Your task to perform on an android device: change the clock display to digital Image 0: 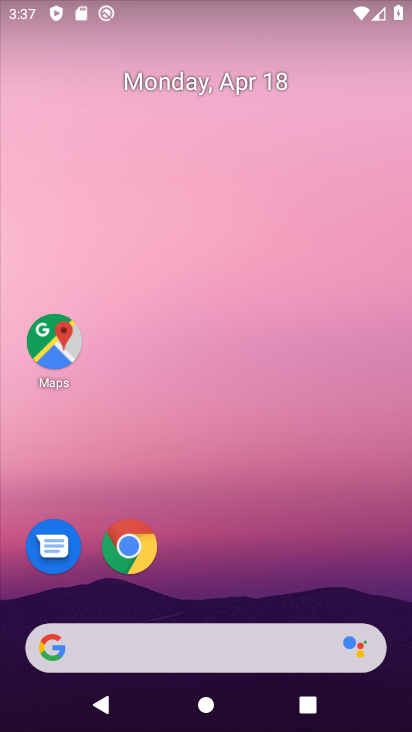
Step 0: drag from (198, 516) to (230, 153)
Your task to perform on an android device: change the clock display to digital Image 1: 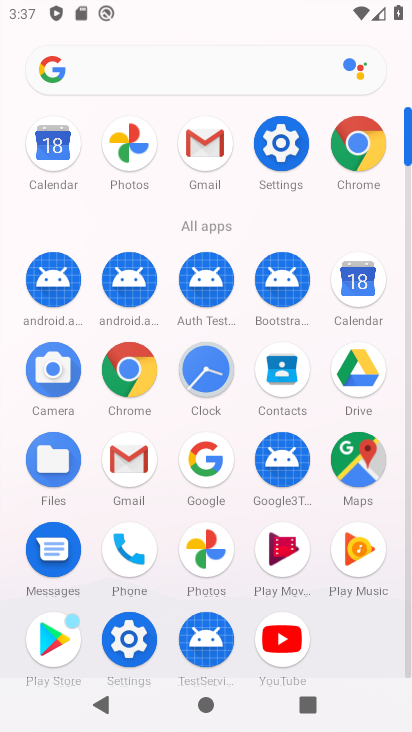
Step 1: click (210, 370)
Your task to perform on an android device: change the clock display to digital Image 2: 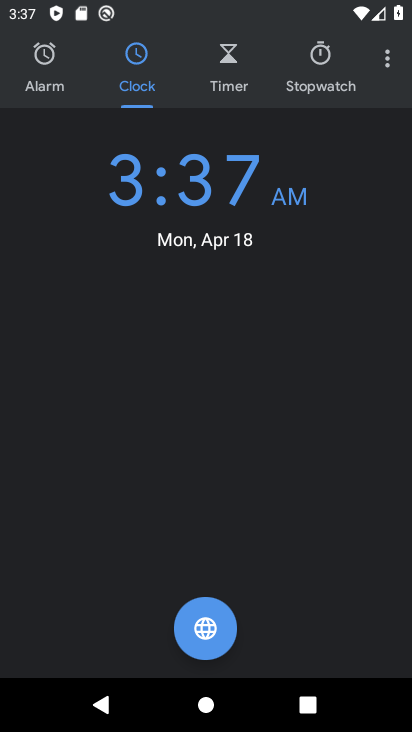
Step 2: click (392, 54)
Your task to perform on an android device: change the clock display to digital Image 3: 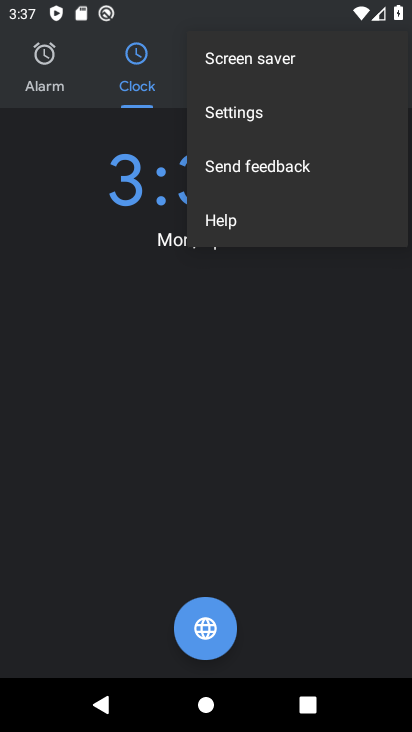
Step 3: click (255, 107)
Your task to perform on an android device: change the clock display to digital Image 4: 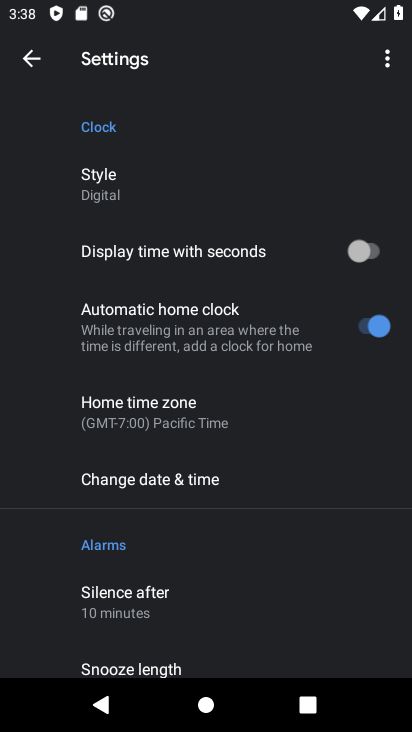
Step 4: task complete